Your task to perform on an android device: turn off translation in the chrome app Image 0: 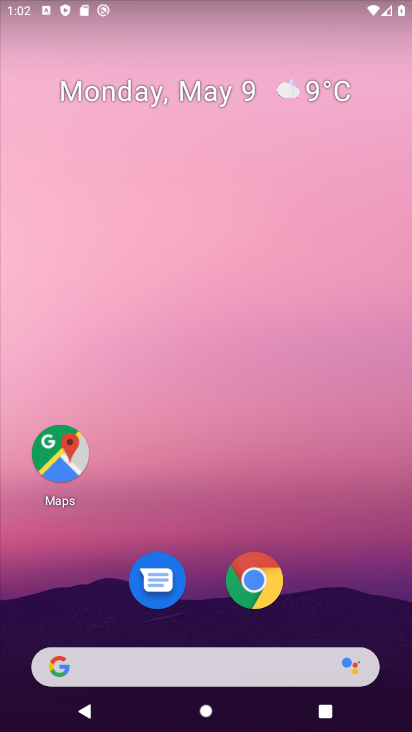
Step 0: click (258, 588)
Your task to perform on an android device: turn off translation in the chrome app Image 1: 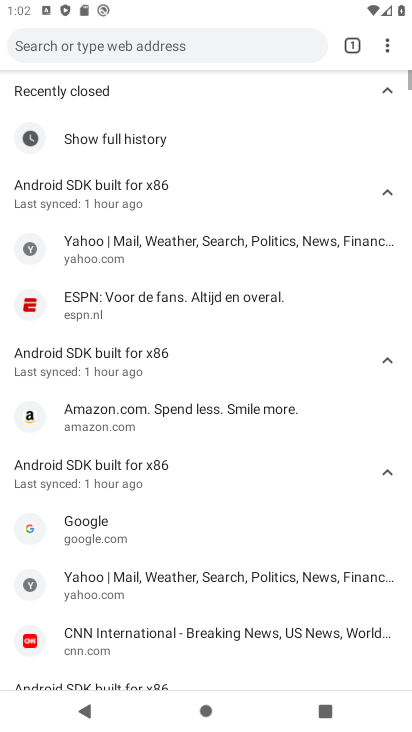
Step 1: click (383, 44)
Your task to perform on an android device: turn off translation in the chrome app Image 2: 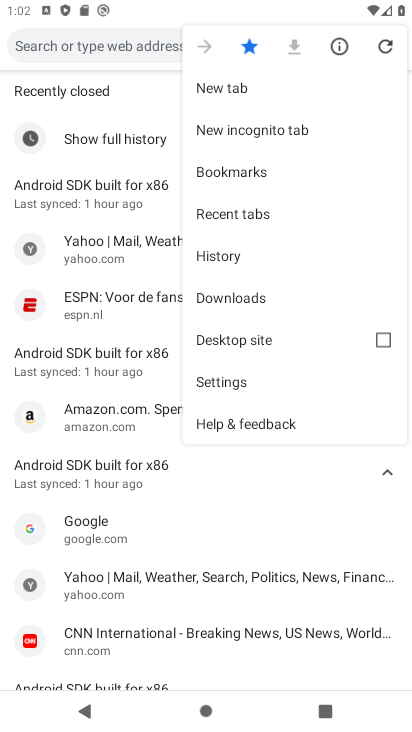
Step 2: click (241, 376)
Your task to perform on an android device: turn off translation in the chrome app Image 3: 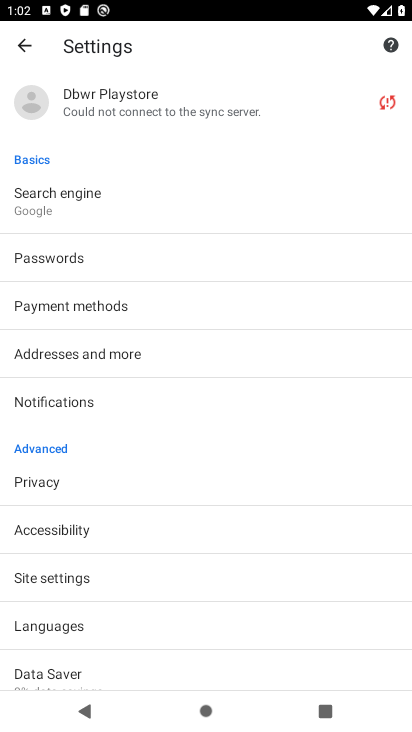
Step 3: click (136, 621)
Your task to perform on an android device: turn off translation in the chrome app Image 4: 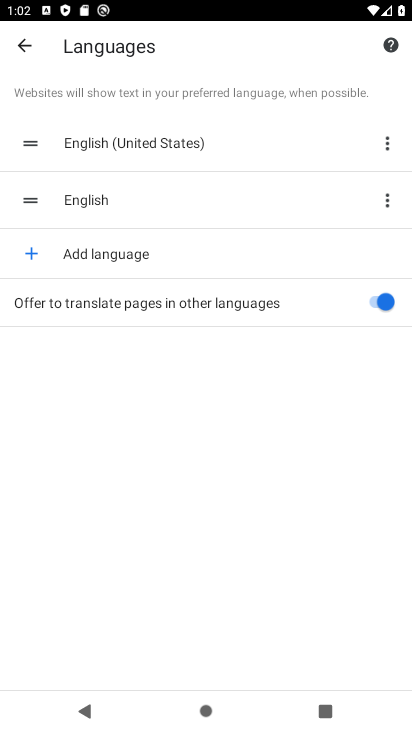
Step 4: click (381, 292)
Your task to perform on an android device: turn off translation in the chrome app Image 5: 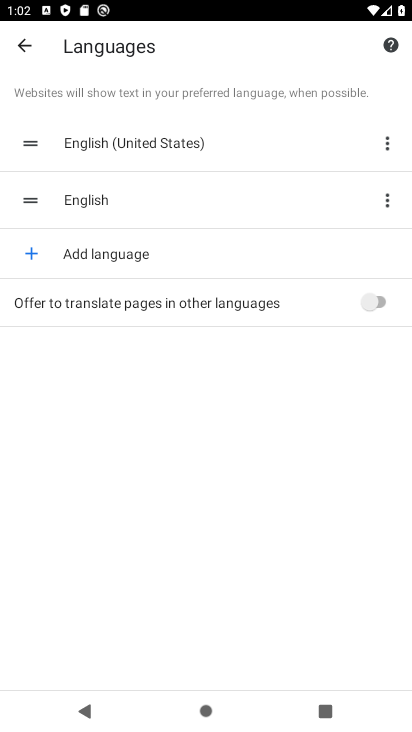
Step 5: task complete